Your task to perform on an android device: open app "Messenger Lite" Image 0: 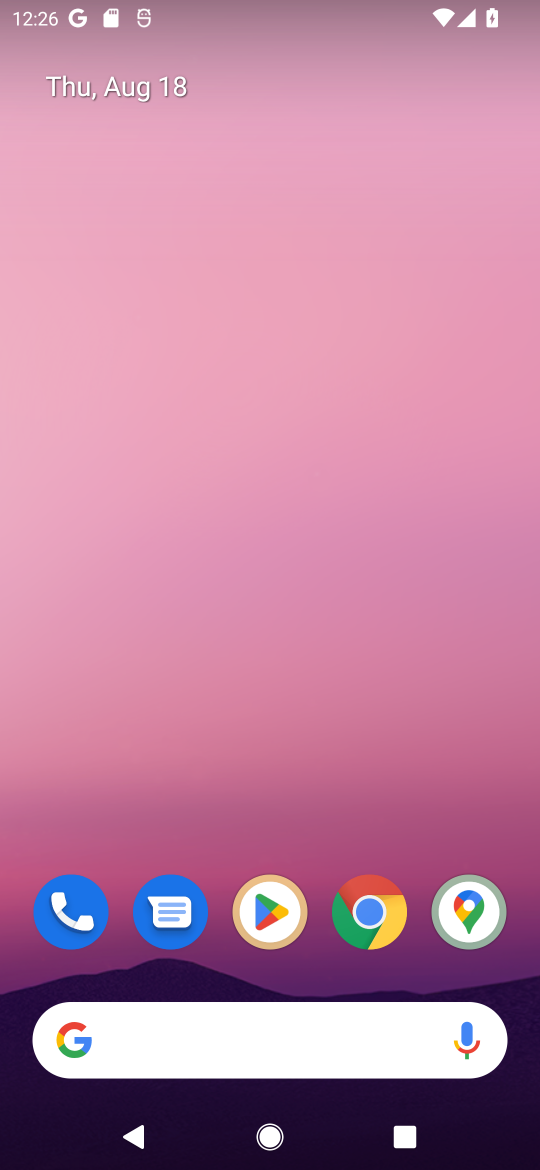
Step 0: click (268, 905)
Your task to perform on an android device: open app "Messenger Lite" Image 1: 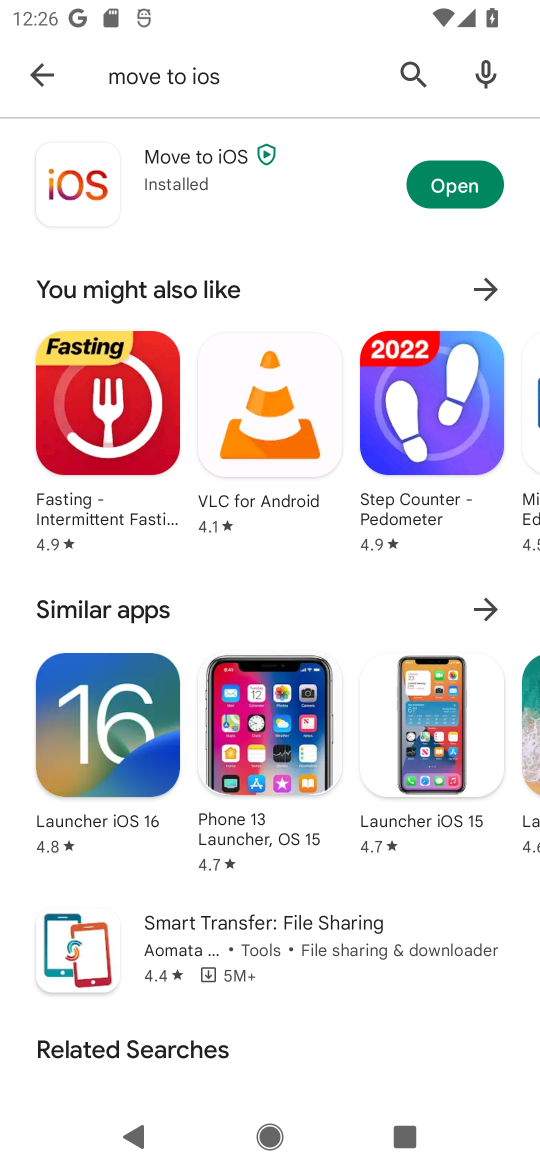
Step 1: click (411, 72)
Your task to perform on an android device: open app "Messenger Lite" Image 2: 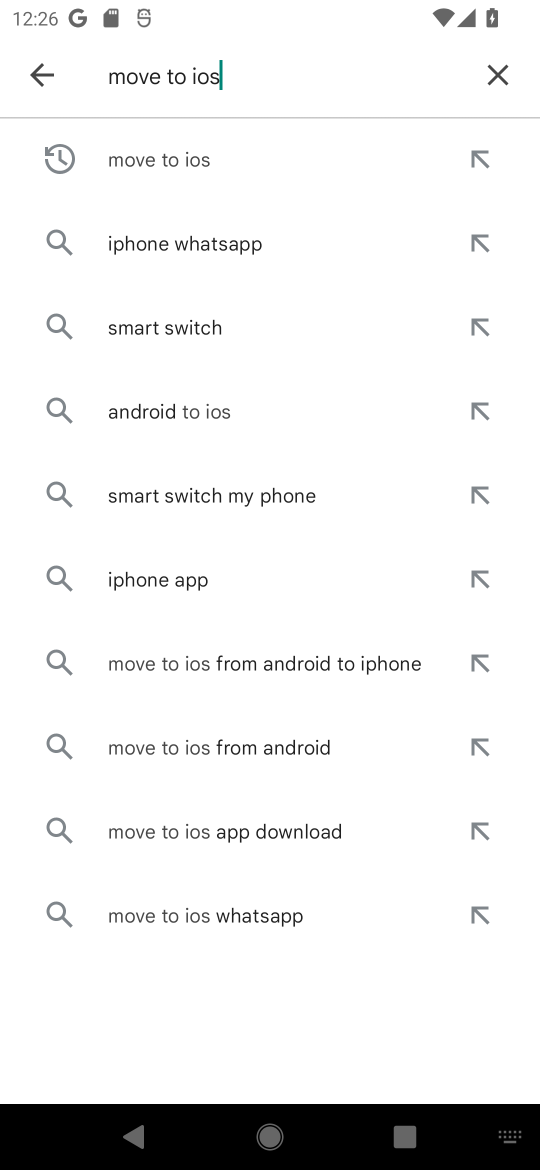
Step 2: click (493, 63)
Your task to perform on an android device: open app "Messenger Lite" Image 3: 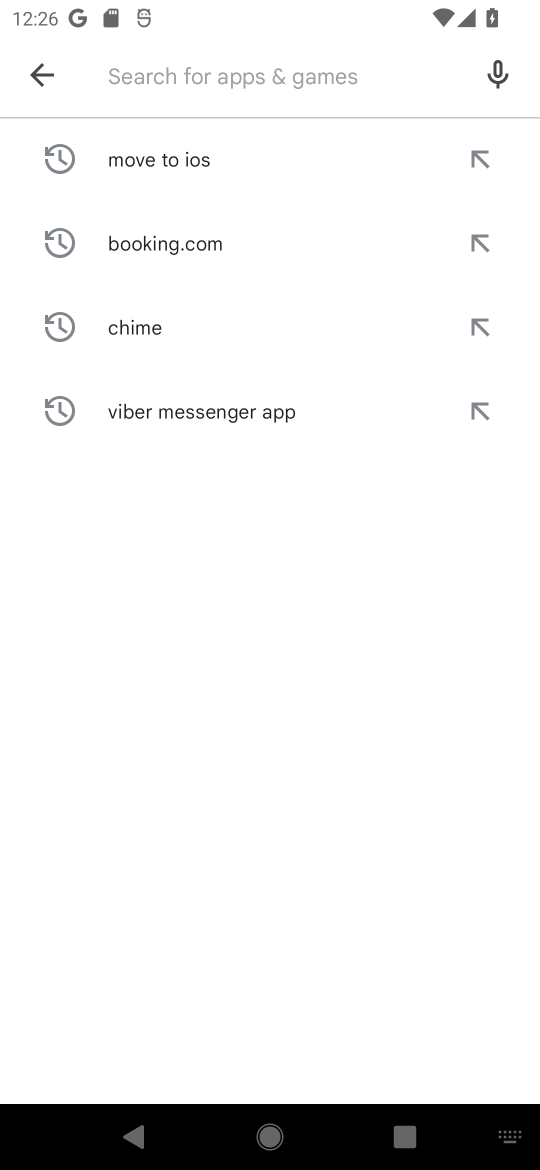
Step 3: click (187, 71)
Your task to perform on an android device: open app "Messenger Lite" Image 4: 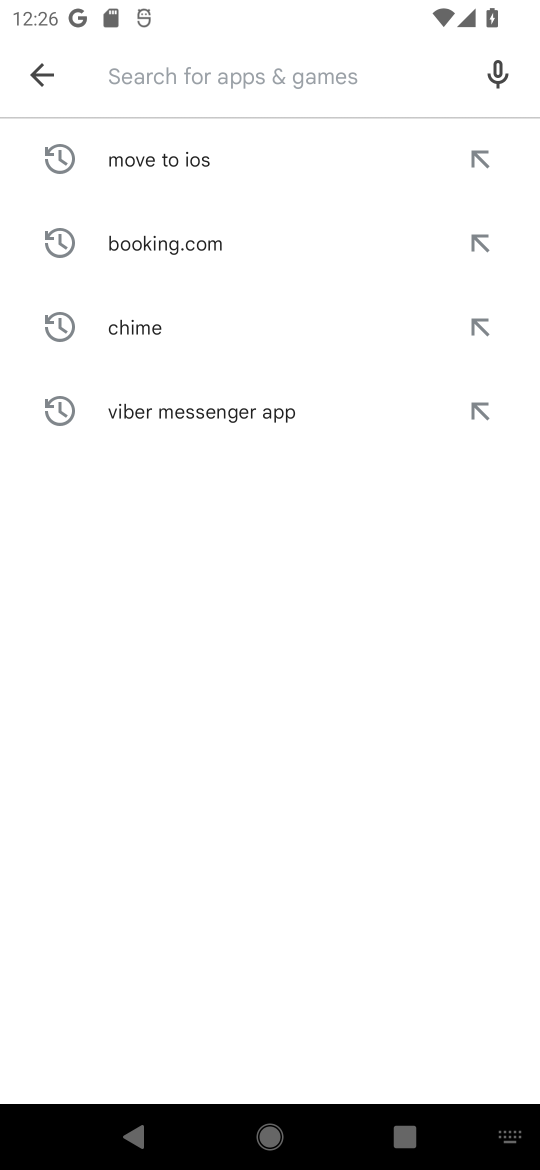
Step 4: type "Messenger Lite"
Your task to perform on an android device: open app "Messenger Lite" Image 5: 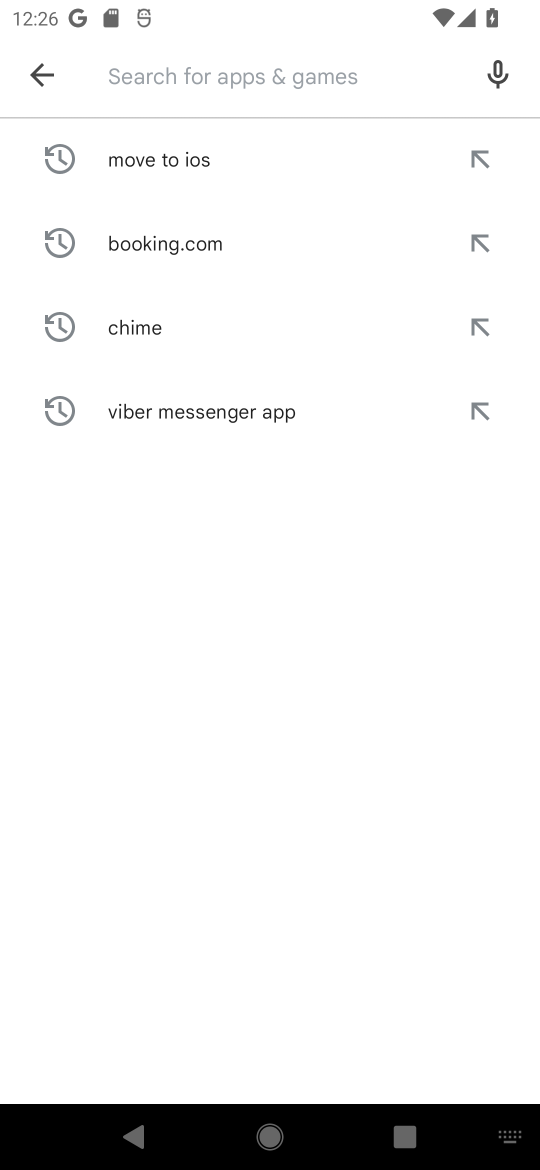
Step 5: click (315, 747)
Your task to perform on an android device: open app "Messenger Lite" Image 6: 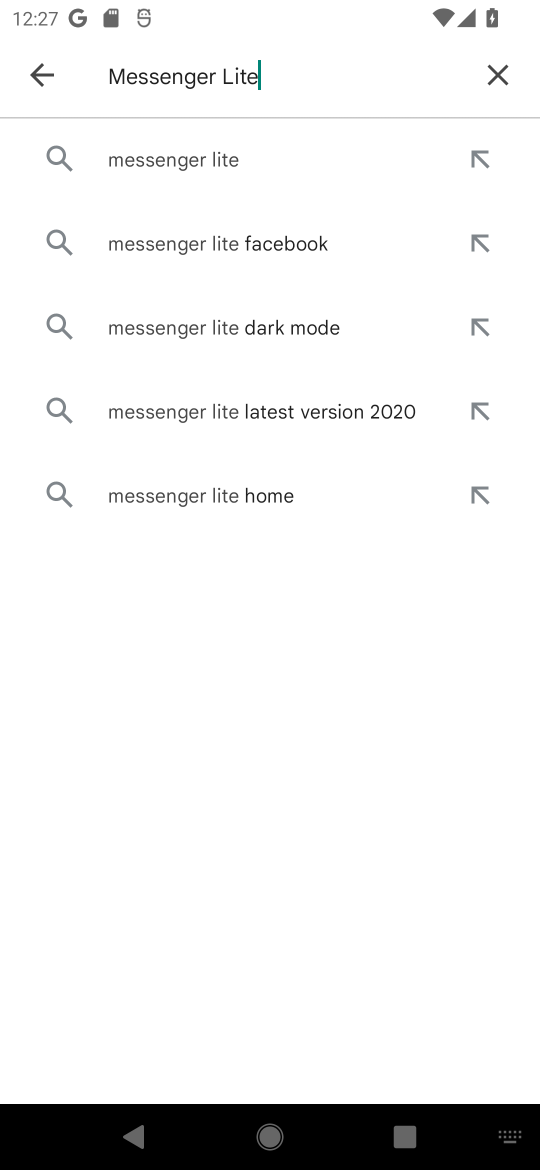
Step 6: click (206, 154)
Your task to perform on an android device: open app "Messenger Lite" Image 7: 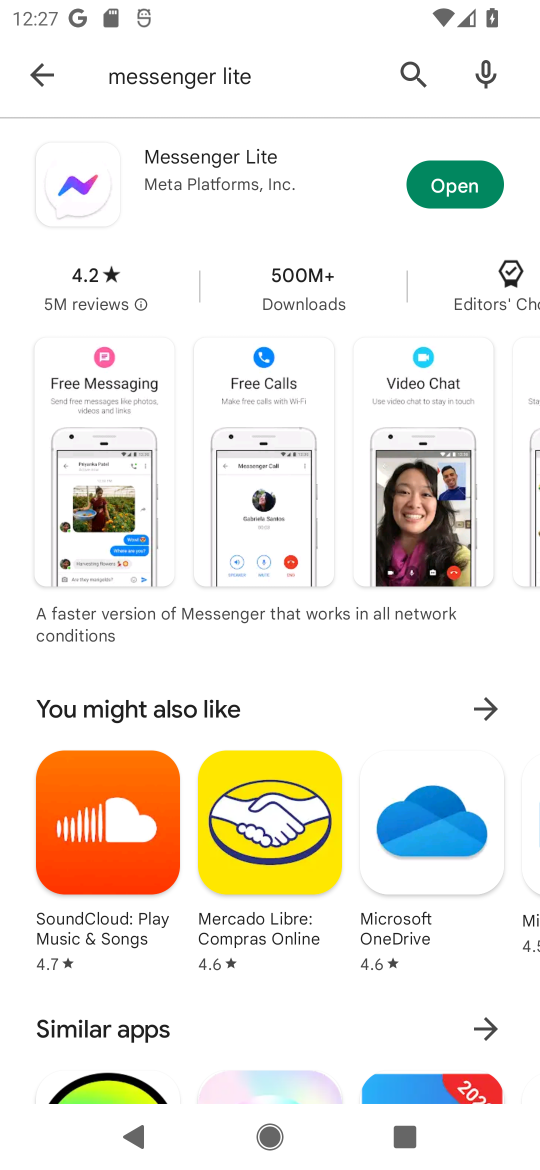
Step 7: click (457, 193)
Your task to perform on an android device: open app "Messenger Lite" Image 8: 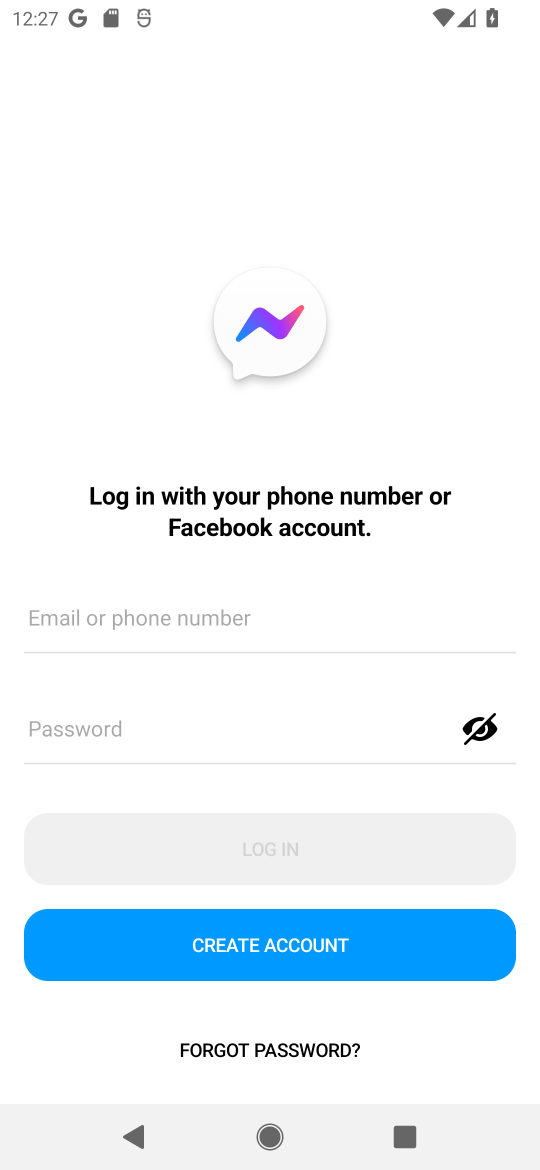
Step 8: task complete